Your task to perform on an android device: Is it going to rain this weekend? Image 0: 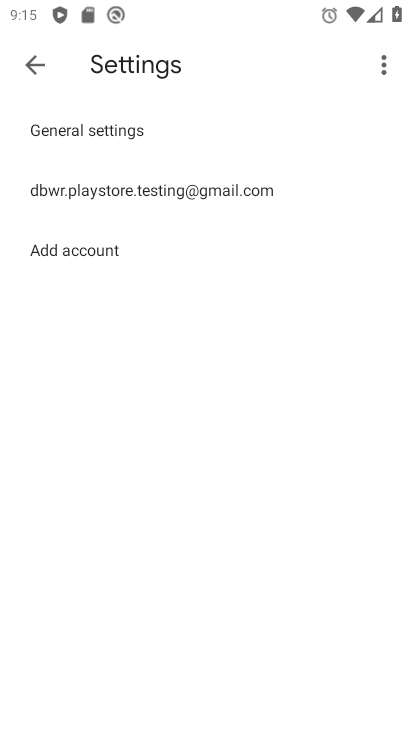
Step 0: press home button
Your task to perform on an android device: Is it going to rain this weekend? Image 1: 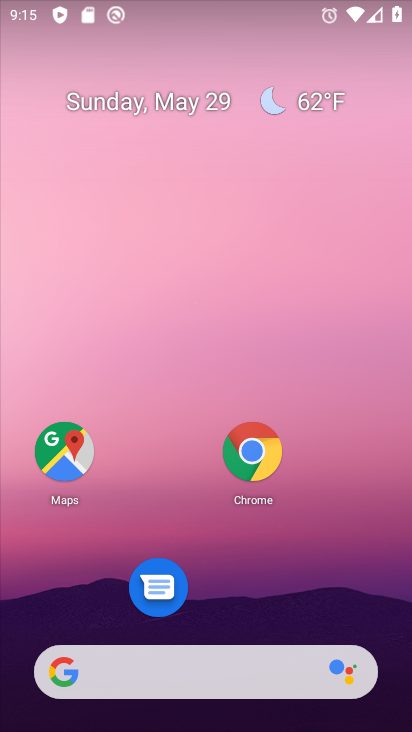
Step 1: click (332, 86)
Your task to perform on an android device: Is it going to rain this weekend? Image 2: 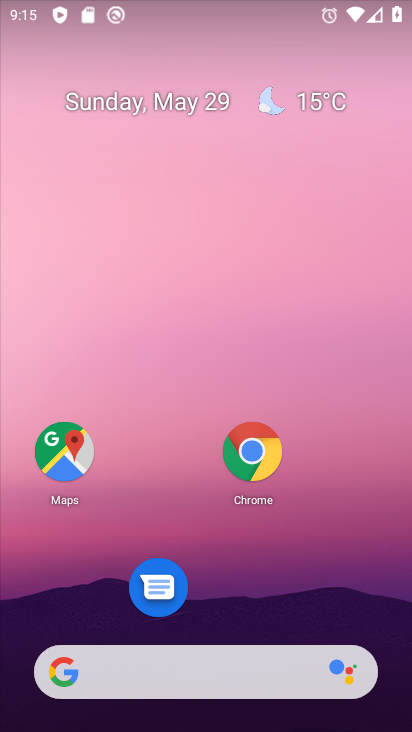
Step 2: click (331, 95)
Your task to perform on an android device: Is it going to rain this weekend? Image 3: 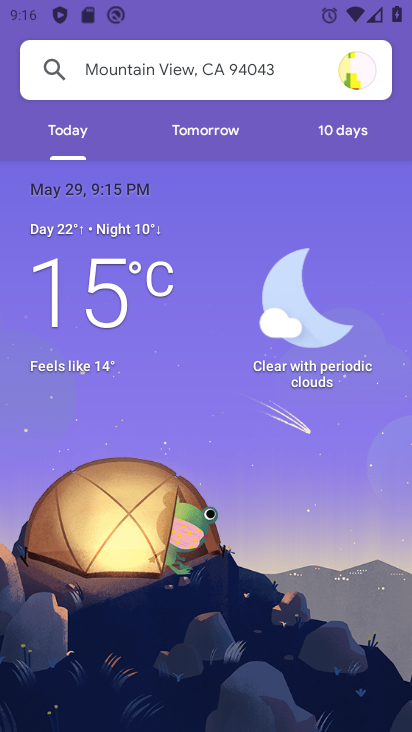
Step 3: click (342, 135)
Your task to perform on an android device: Is it going to rain this weekend? Image 4: 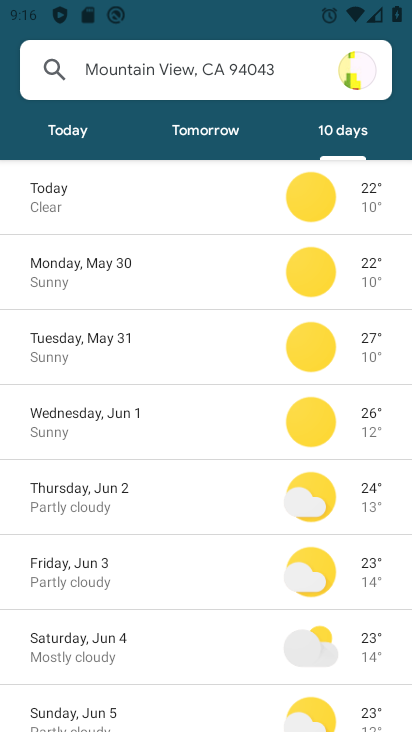
Step 4: task complete